Your task to perform on an android device: move a message to another label in the gmail app Image 0: 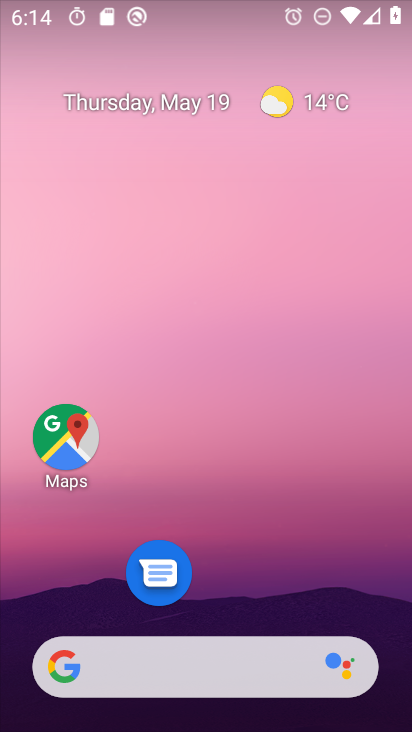
Step 0: drag from (232, 594) to (216, 291)
Your task to perform on an android device: move a message to another label in the gmail app Image 1: 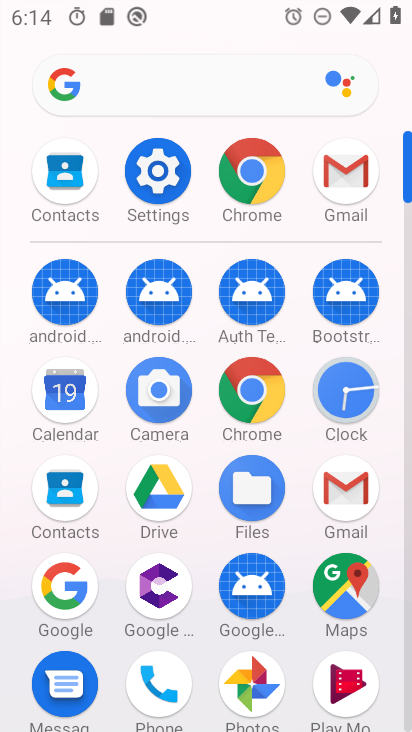
Step 1: click (333, 199)
Your task to perform on an android device: move a message to another label in the gmail app Image 2: 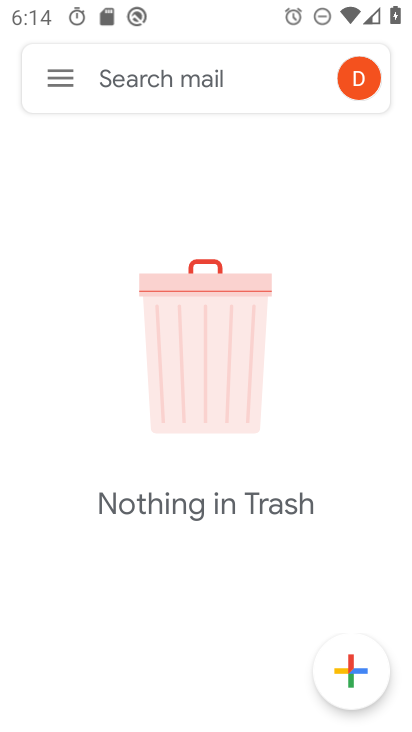
Step 2: click (58, 73)
Your task to perform on an android device: move a message to another label in the gmail app Image 3: 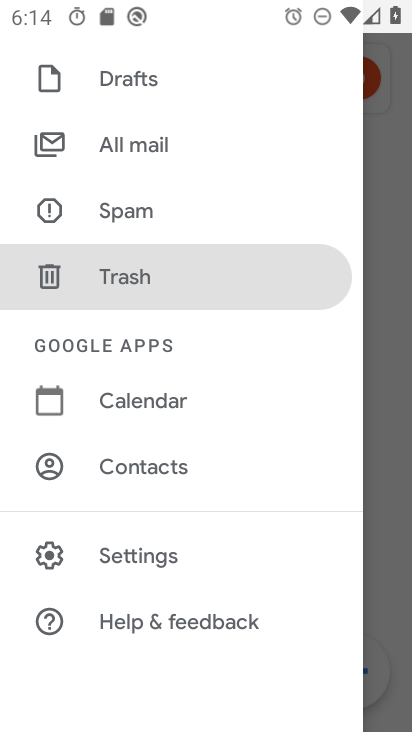
Step 3: click (138, 146)
Your task to perform on an android device: move a message to another label in the gmail app Image 4: 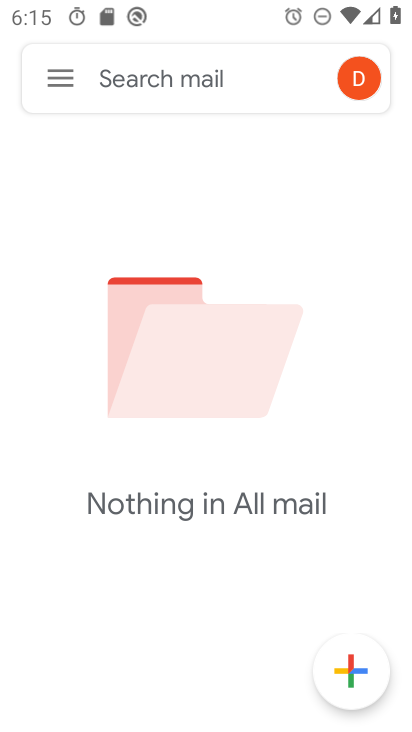
Step 4: task complete